Your task to perform on an android device: change your default location settings in chrome Image 0: 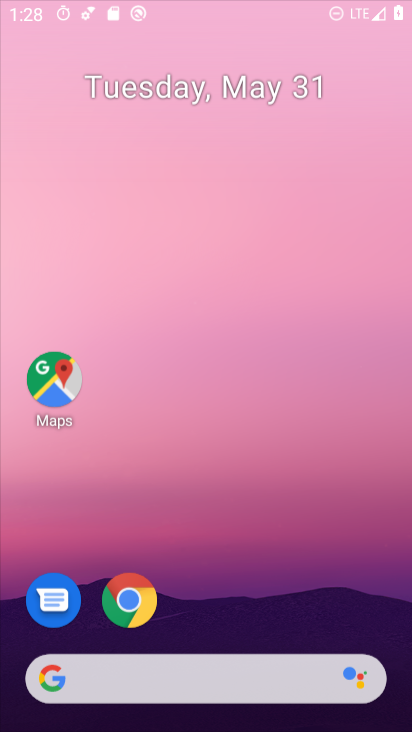
Step 0: drag from (192, 719) to (200, 14)
Your task to perform on an android device: change your default location settings in chrome Image 1: 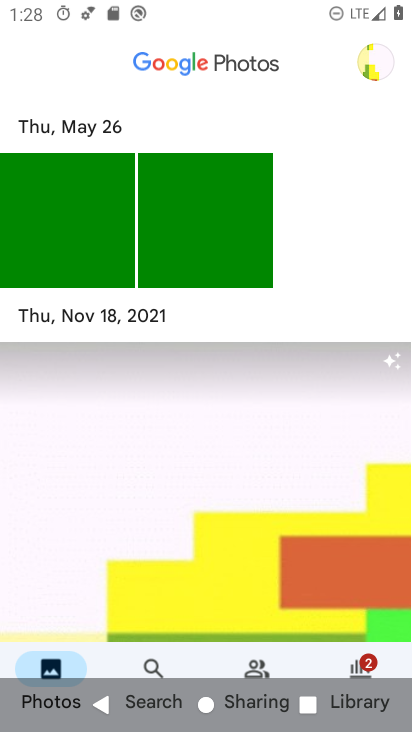
Step 1: press home button
Your task to perform on an android device: change your default location settings in chrome Image 2: 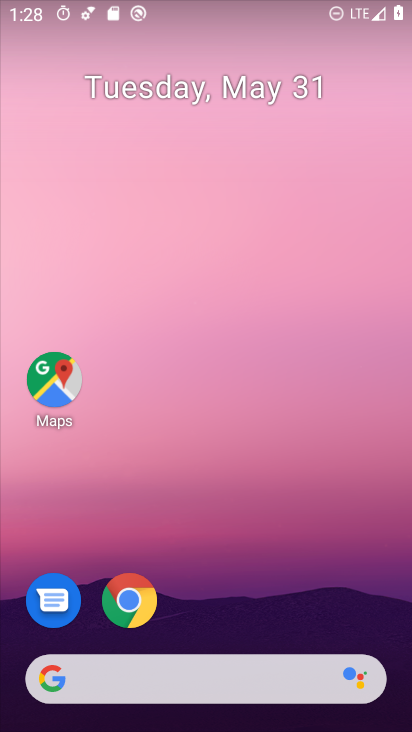
Step 2: drag from (224, 728) to (219, 126)
Your task to perform on an android device: change your default location settings in chrome Image 3: 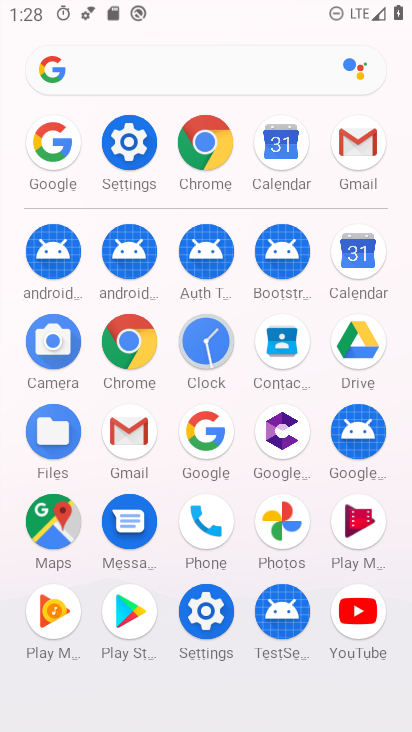
Step 3: click (128, 336)
Your task to perform on an android device: change your default location settings in chrome Image 4: 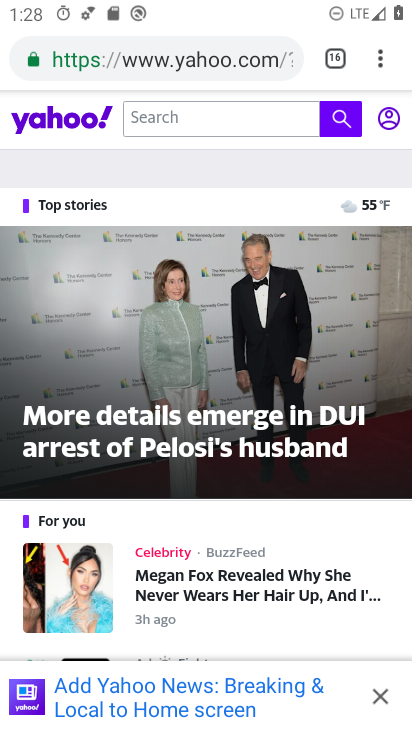
Step 4: click (380, 64)
Your task to perform on an android device: change your default location settings in chrome Image 5: 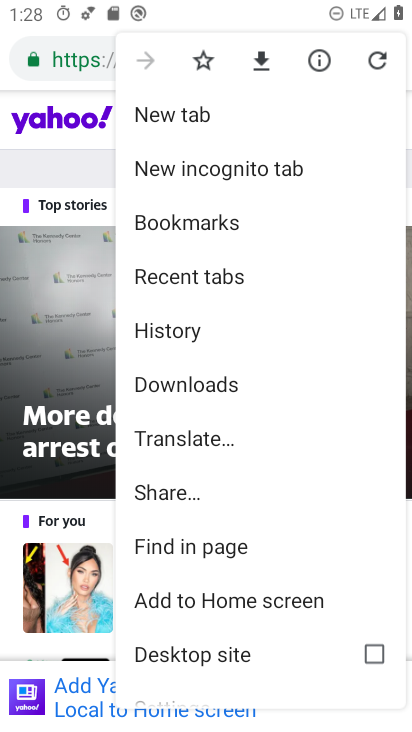
Step 5: drag from (183, 655) to (178, 257)
Your task to perform on an android device: change your default location settings in chrome Image 6: 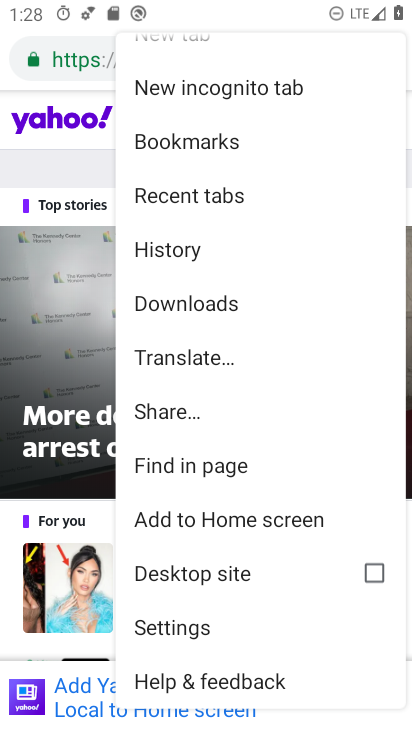
Step 6: click (187, 626)
Your task to perform on an android device: change your default location settings in chrome Image 7: 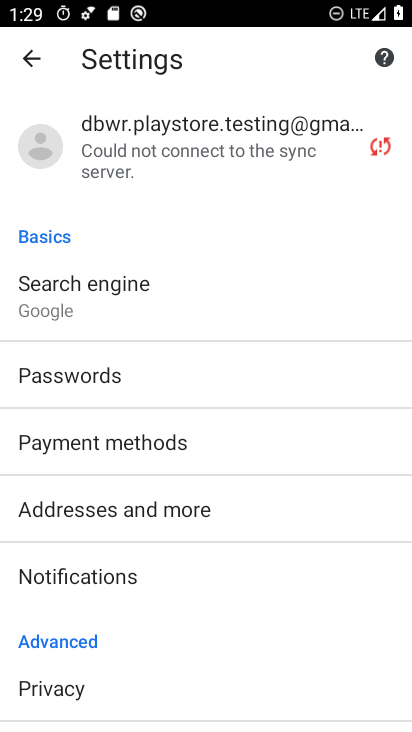
Step 7: drag from (127, 687) to (133, 245)
Your task to perform on an android device: change your default location settings in chrome Image 8: 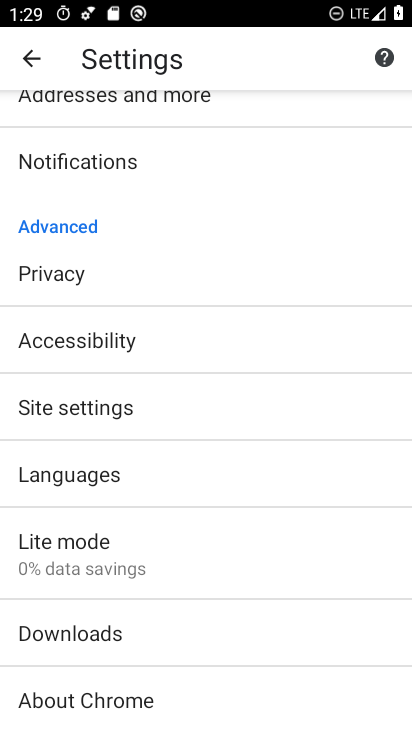
Step 8: click (121, 408)
Your task to perform on an android device: change your default location settings in chrome Image 9: 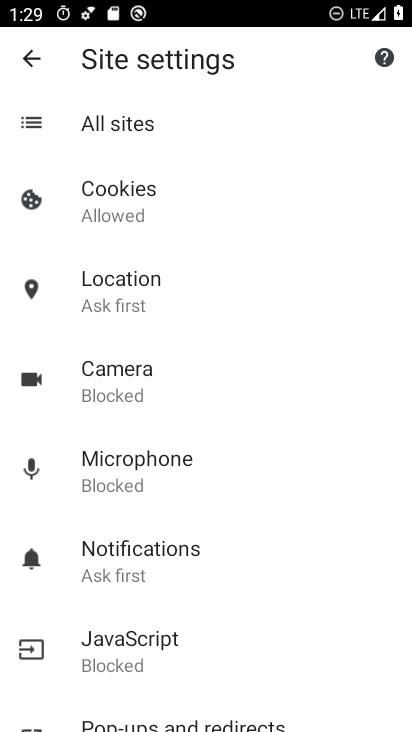
Step 9: click (105, 286)
Your task to perform on an android device: change your default location settings in chrome Image 10: 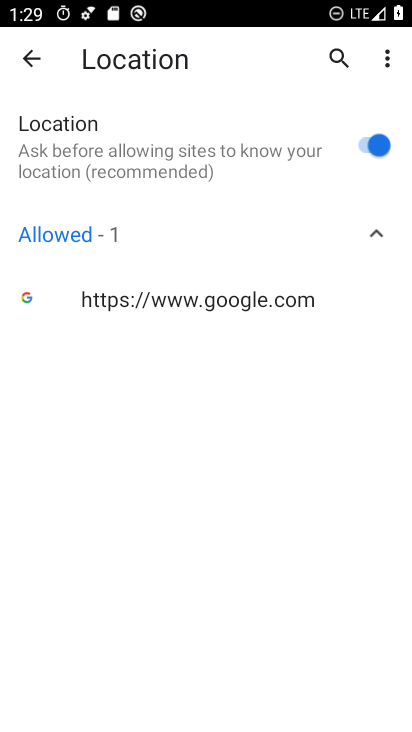
Step 10: click (364, 148)
Your task to perform on an android device: change your default location settings in chrome Image 11: 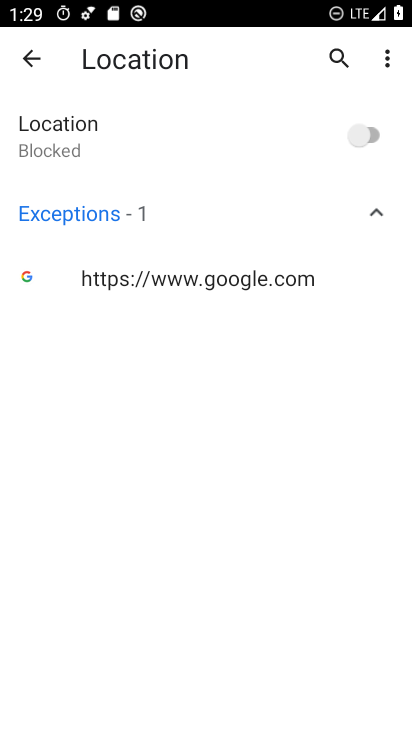
Step 11: task complete